Your task to perform on an android device: What's the weather going to be tomorrow? Image 0: 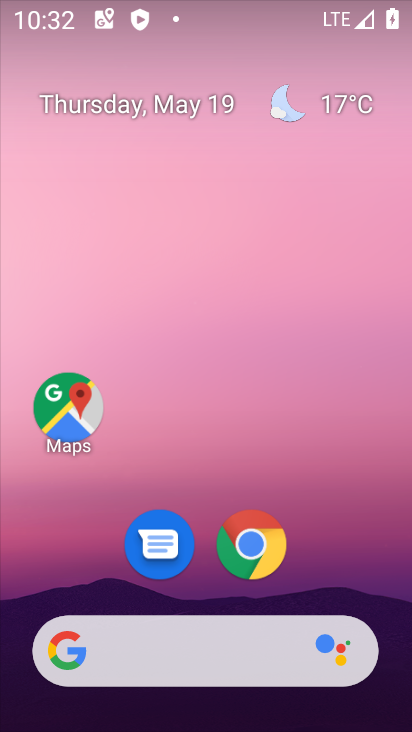
Step 0: click (258, 641)
Your task to perform on an android device: What's the weather going to be tomorrow? Image 1: 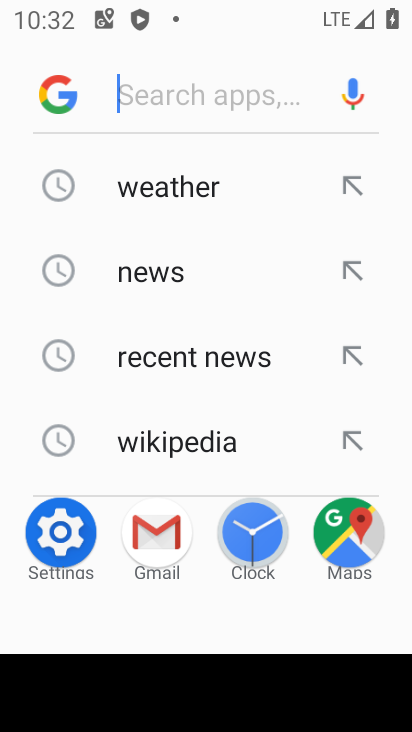
Step 1: type "What's the weather going to be tomorrow?"
Your task to perform on an android device: What's the weather going to be tomorrow? Image 2: 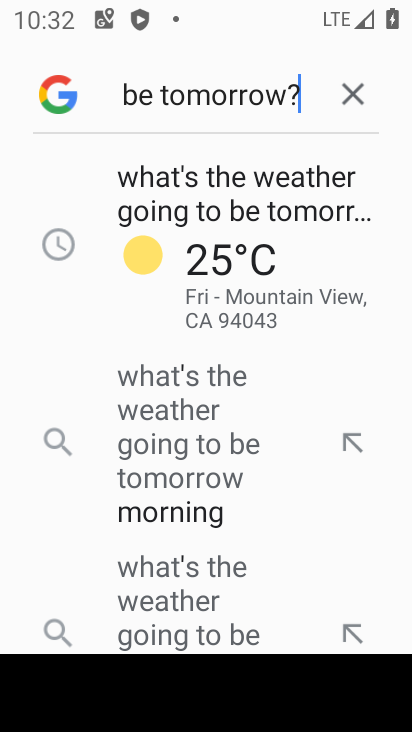
Step 2: click (274, 199)
Your task to perform on an android device: What's the weather going to be tomorrow? Image 3: 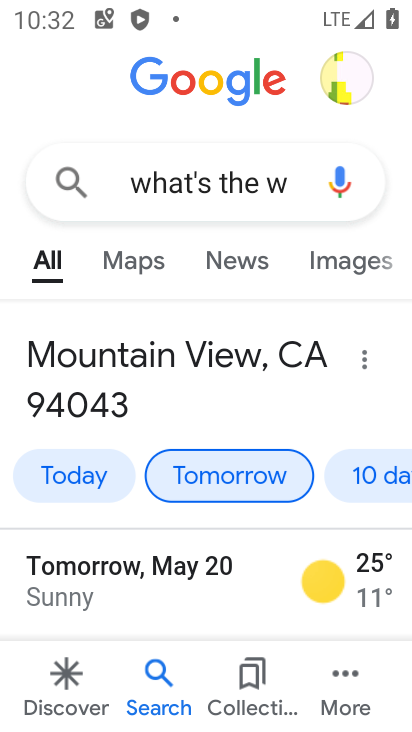
Step 3: task complete